Your task to perform on an android device: find which apps use the phone's location Image 0: 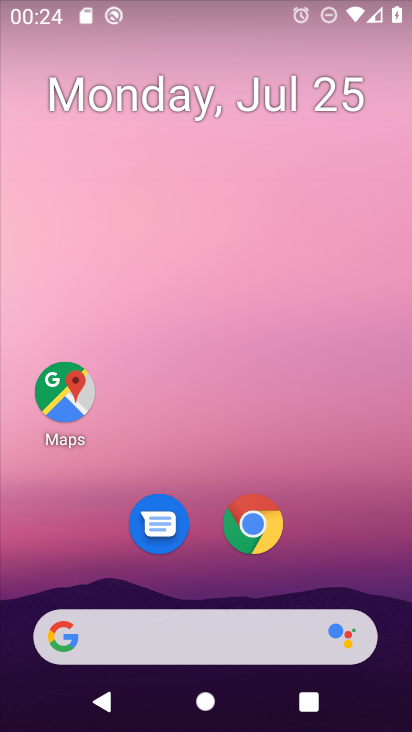
Step 0: press home button
Your task to perform on an android device: find which apps use the phone's location Image 1: 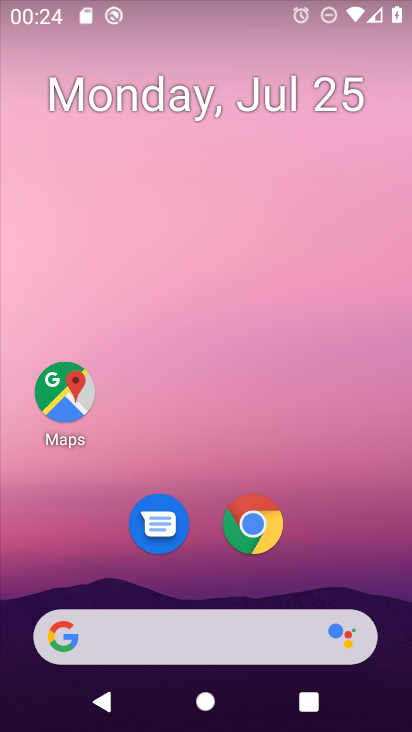
Step 1: drag from (163, 643) to (321, 146)
Your task to perform on an android device: find which apps use the phone's location Image 2: 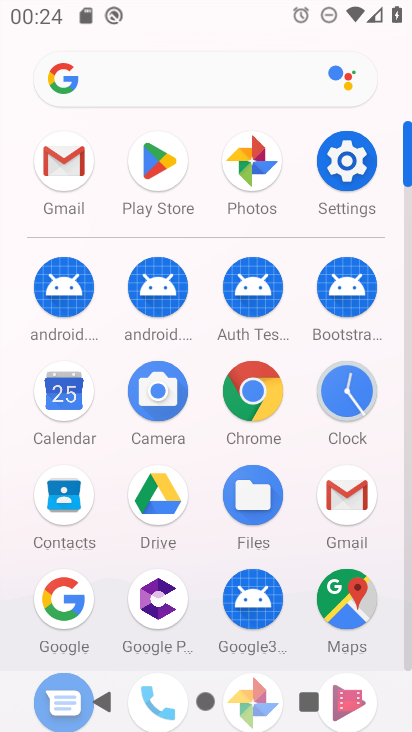
Step 2: click (352, 178)
Your task to perform on an android device: find which apps use the phone's location Image 3: 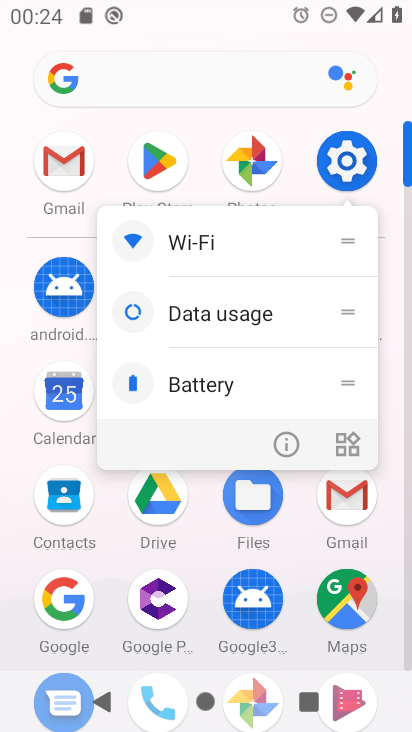
Step 3: click (344, 165)
Your task to perform on an android device: find which apps use the phone's location Image 4: 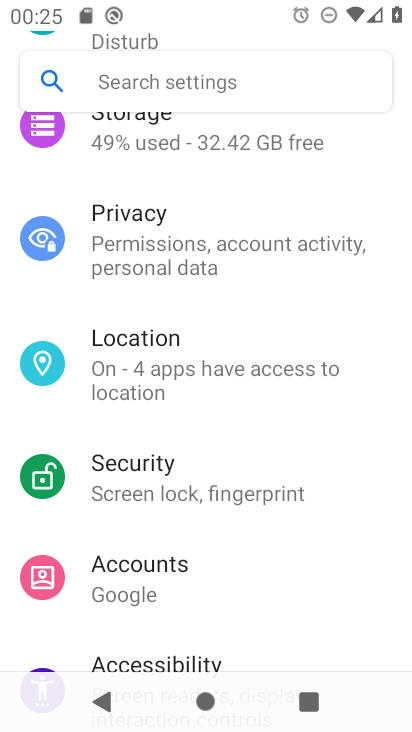
Step 4: drag from (302, 417) to (409, 69)
Your task to perform on an android device: find which apps use the phone's location Image 5: 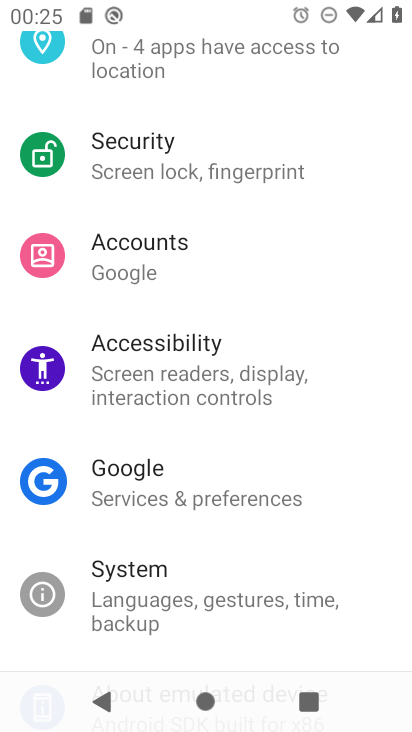
Step 5: drag from (221, 579) to (410, 109)
Your task to perform on an android device: find which apps use the phone's location Image 6: 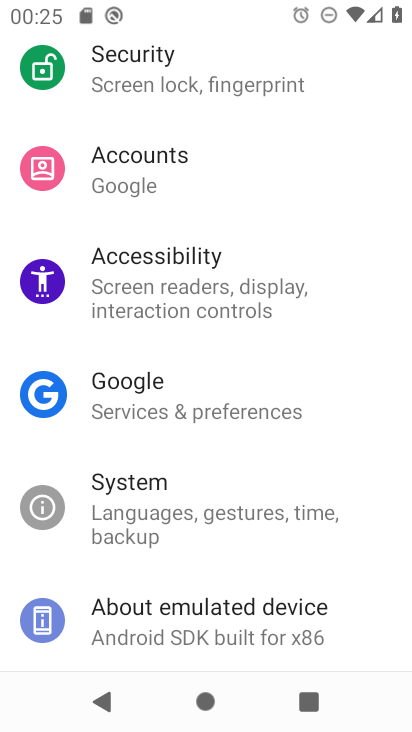
Step 6: click (245, 613)
Your task to perform on an android device: find which apps use the phone's location Image 7: 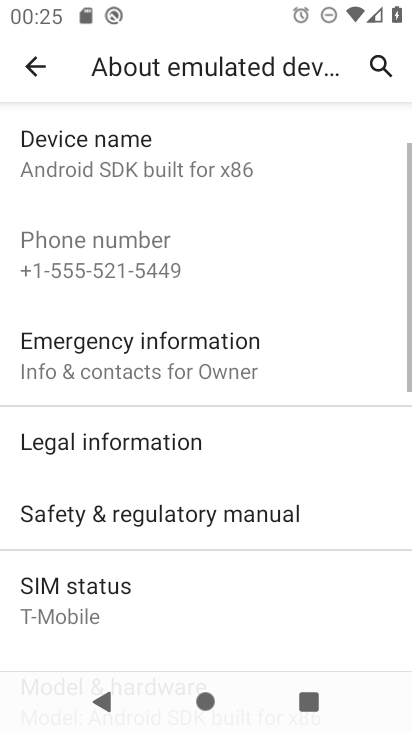
Step 7: task complete